Your task to perform on an android device: turn notification dots off Image 0: 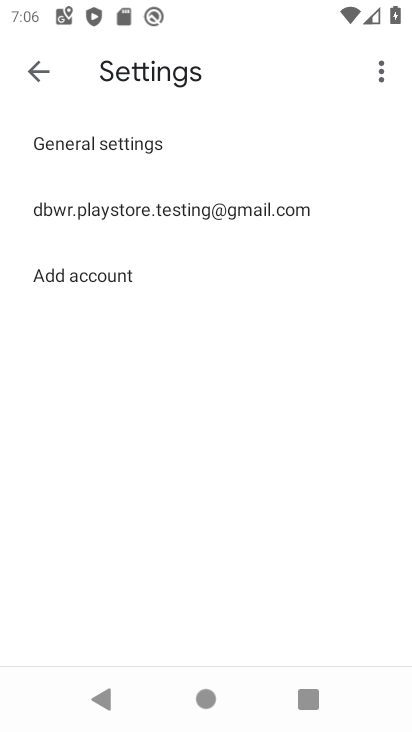
Step 0: press home button
Your task to perform on an android device: turn notification dots off Image 1: 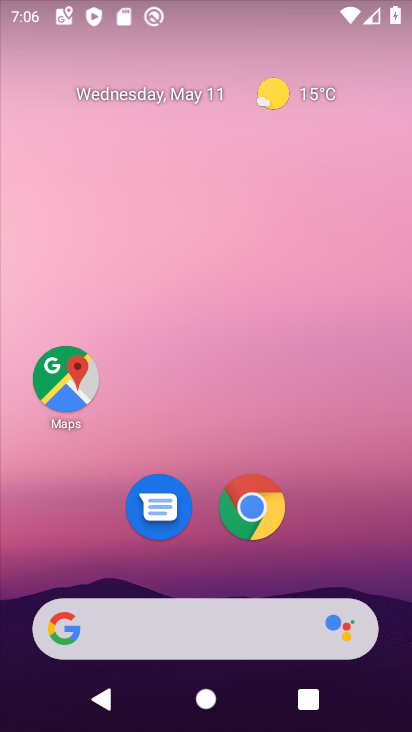
Step 1: drag from (284, 648) to (227, 305)
Your task to perform on an android device: turn notification dots off Image 2: 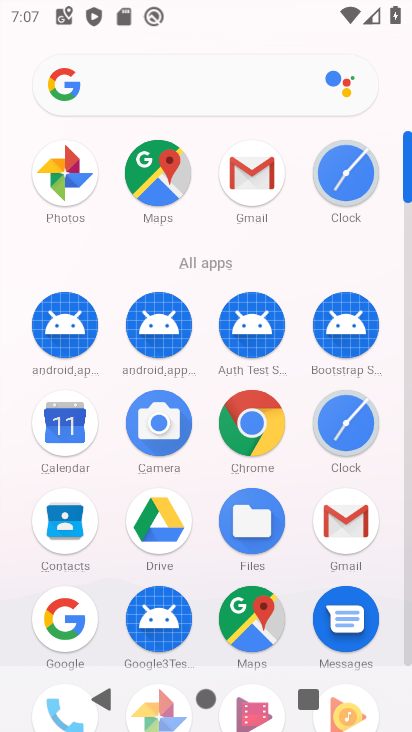
Step 2: drag from (210, 483) to (204, 313)
Your task to perform on an android device: turn notification dots off Image 3: 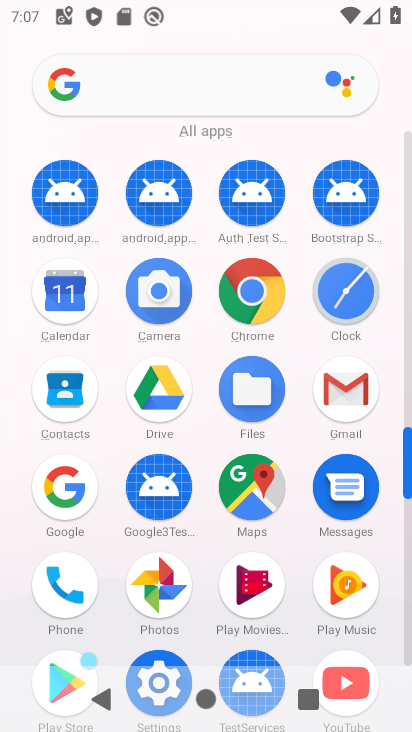
Step 3: click (167, 650)
Your task to perform on an android device: turn notification dots off Image 4: 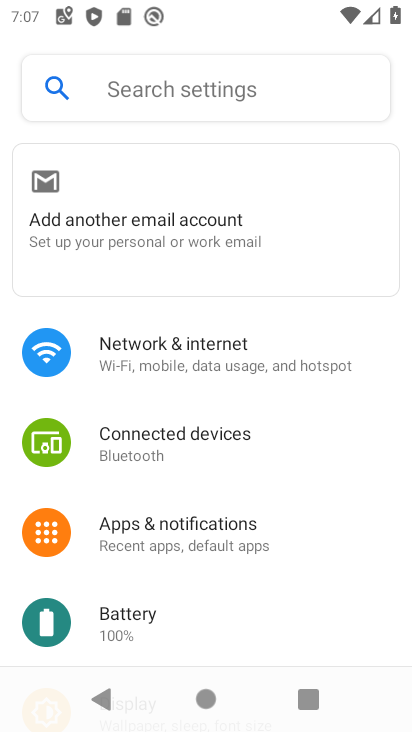
Step 4: click (125, 108)
Your task to perform on an android device: turn notification dots off Image 5: 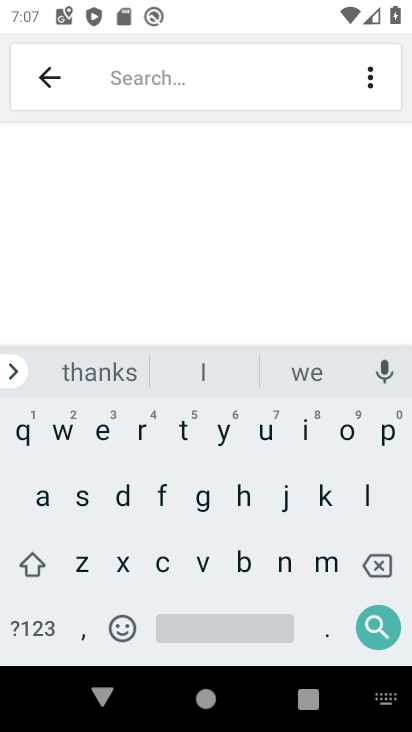
Step 5: click (133, 496)
Your task to perform on an android device: turn notification dots off Image 6: 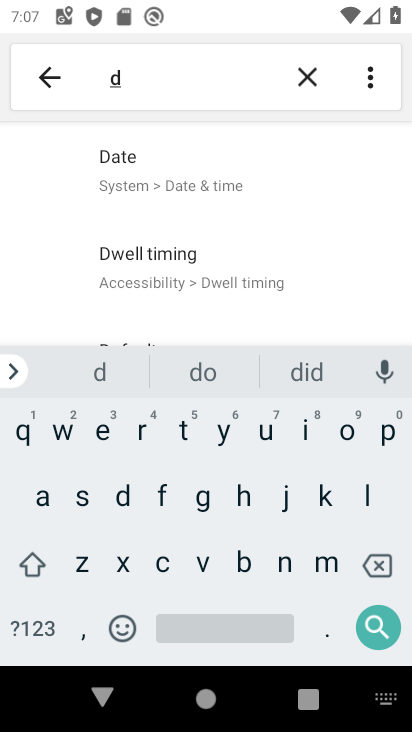
Step 6: click (347, 442)
Your task to perform on an android device: turn notification dots off Image 7: 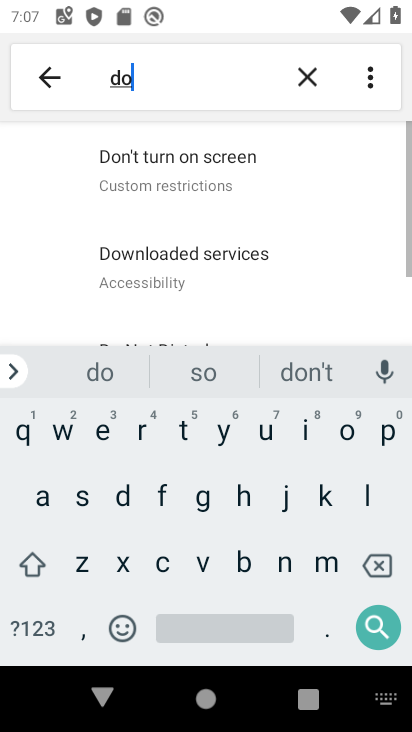
Step 7: click (191, 441)
Your task to perform on an android device: turn notification dots off Image 8: 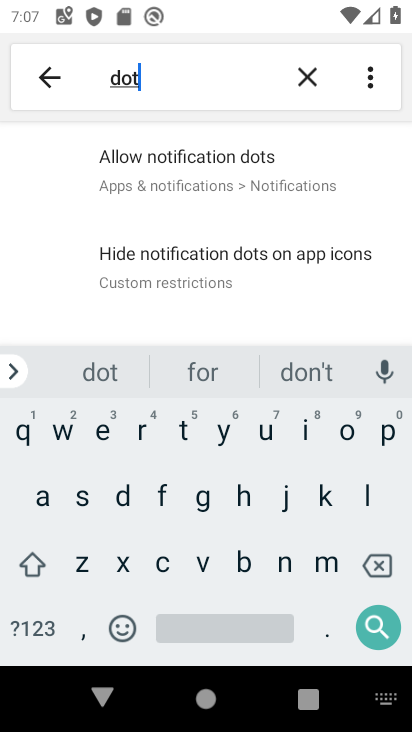
Step 8: click (215, 187)
Your task to perform on an android device: turn notification dots off Image 9: 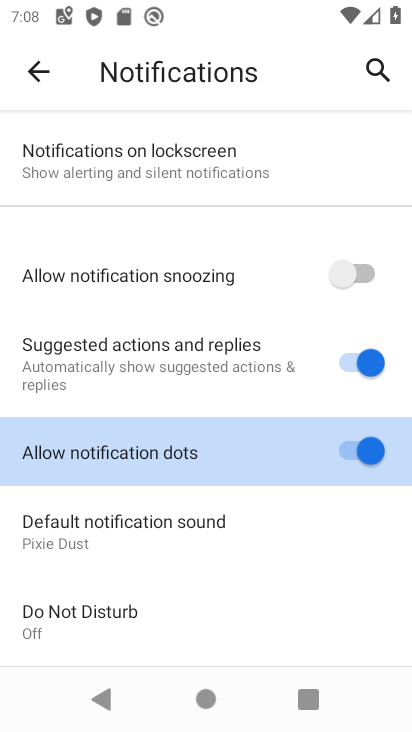
Step 9: click (203, 445)
Your task to perform on an android device: turn notification dots off Image 10: 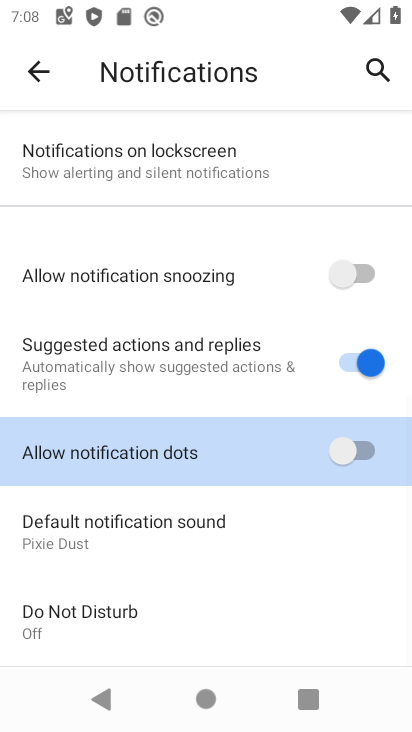
Step 10: task complete